Your task to perform on an android device: Open the Play Movies app and select the watchlist tab. Image 0: 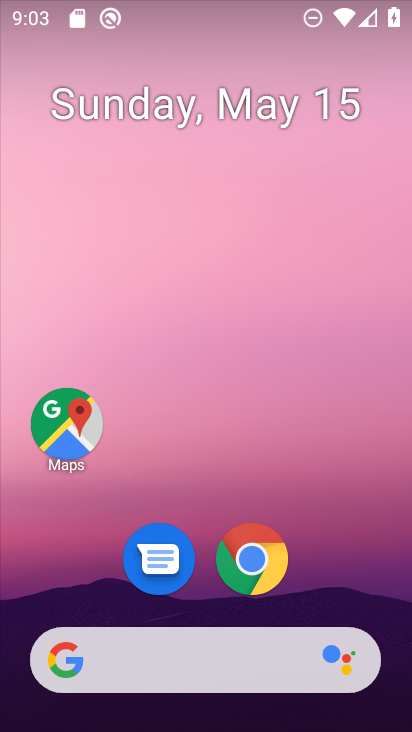
Step 0: drag from (364, 578) to (356, 147)
Your task to perform on an android device: Open the Play Movies app and select the watchlist tab. Image 1: 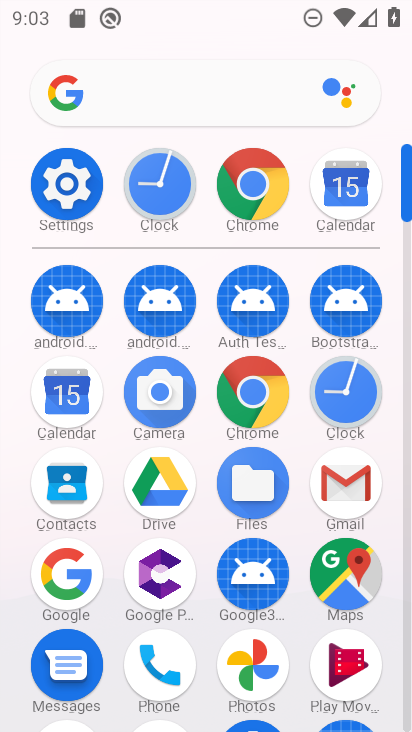
Step 1: click (406, 669)
Your task to perform on an android device: Open the Play Movies app and select the watchlist tab. Image 2: 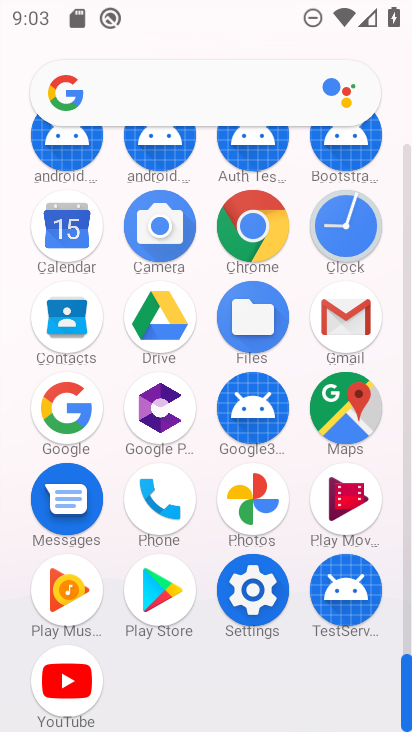
Step 2: click (87, 679)
Your task to perform on an android device: Open the Play Movies app and select the watchlist tab. Image 3: 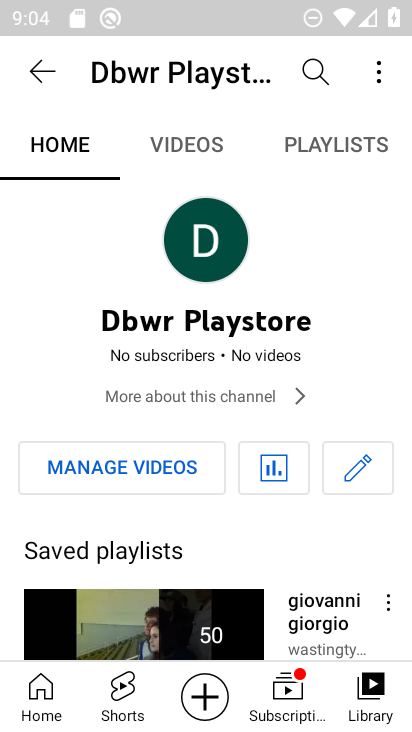
Step 3: press home button
Your task to perform on an android device: Open the Play Movies app and select the watchlist tab. Image 4: 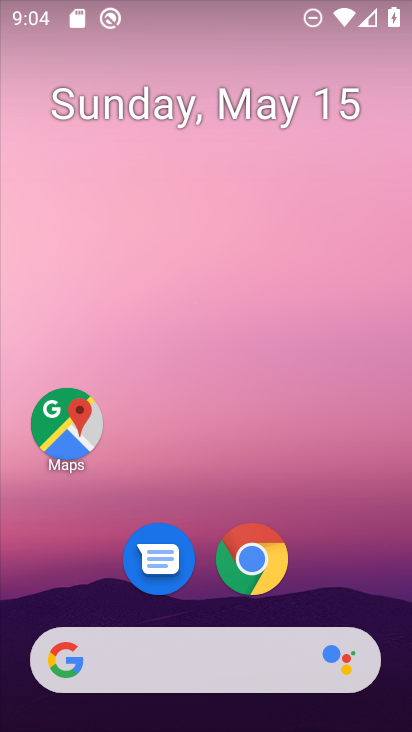
Step 4: drag from (379, 553) to (342, 179)
Your task to perform on an android device: Open the Play Movies app and select the watchlist tab. Image 5: 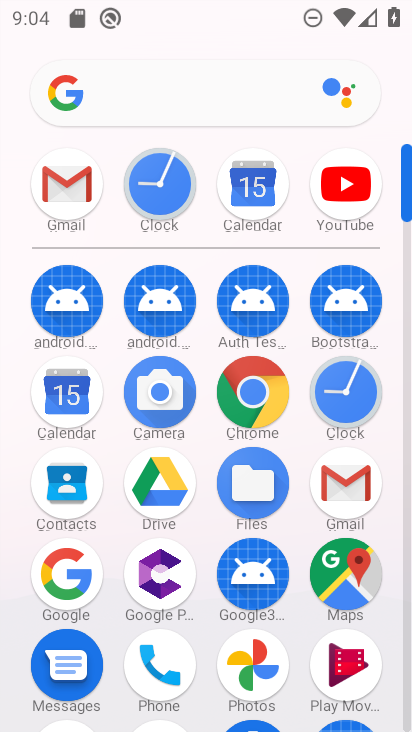
Step 5: click (364, 658)
Your task to perform on an android device: Open the Play Movies app and select the watchlist tab. Image 6: 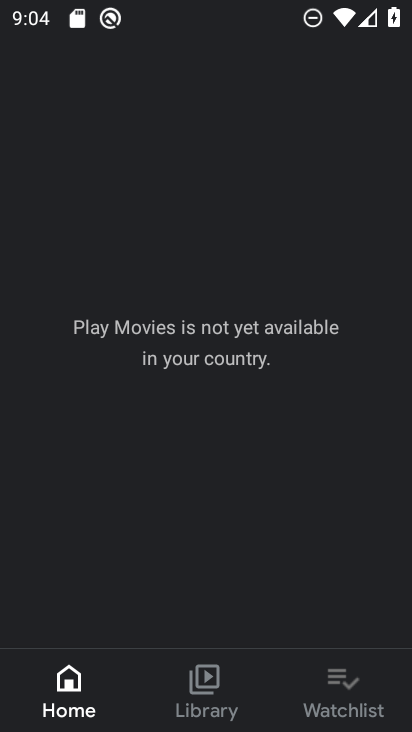
Step 6: click (355, 685)
Your task to perform on an android device: Open the Play Movies app and select the watchlist tab. Image 7: 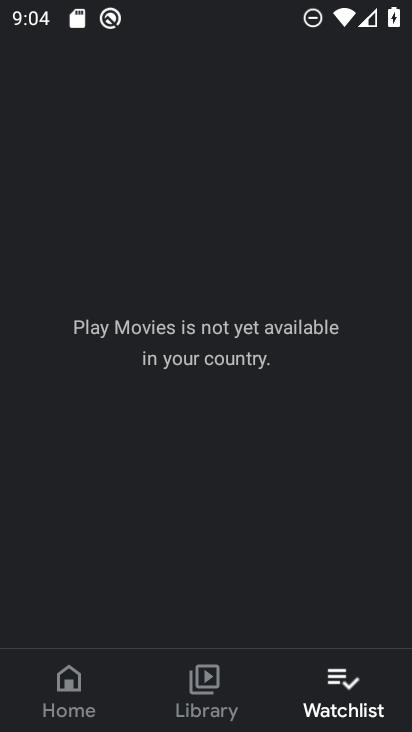
Step 7: task complete